Your task to perform on an android device: uninstall "Google Maps" Image 0: 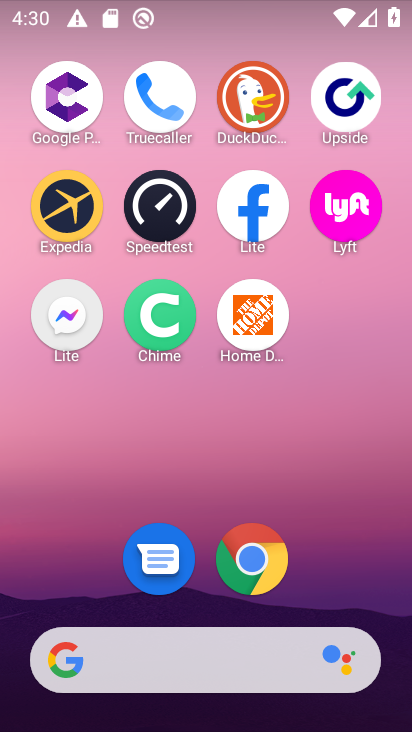
Step 0: drag from (207, 577) to (265, 16)
Your task to perform on an android device: uninstall "Google Maps" Image 1: 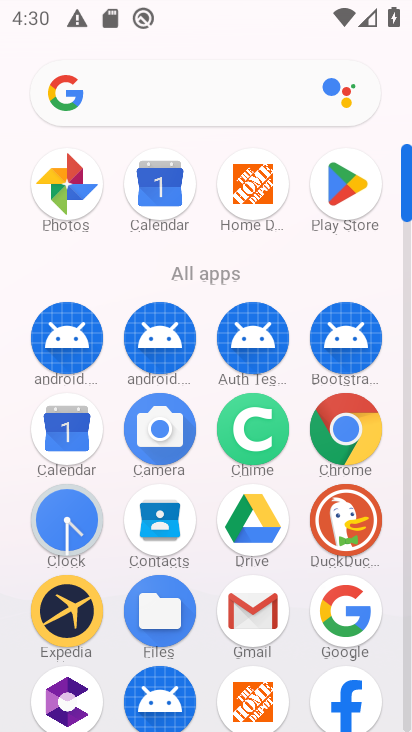
Step 1: click (359, 183)
Your task to perform on an android device: uninstall "Google Maps" Image 2: 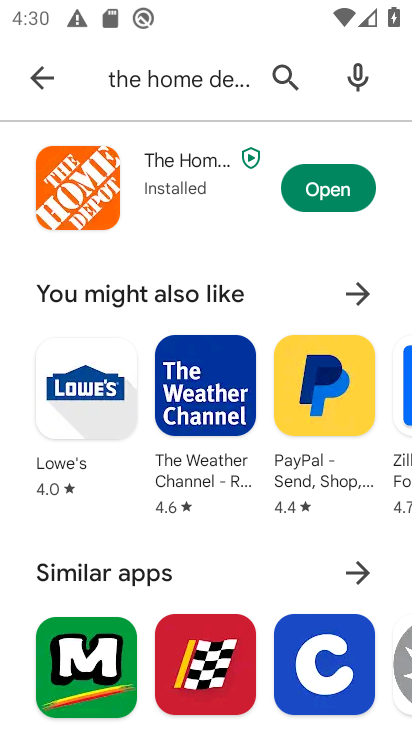
Step 2: click (213, 86)
Your task to perform on an android device: uninstall "Google Maps" Image 3: 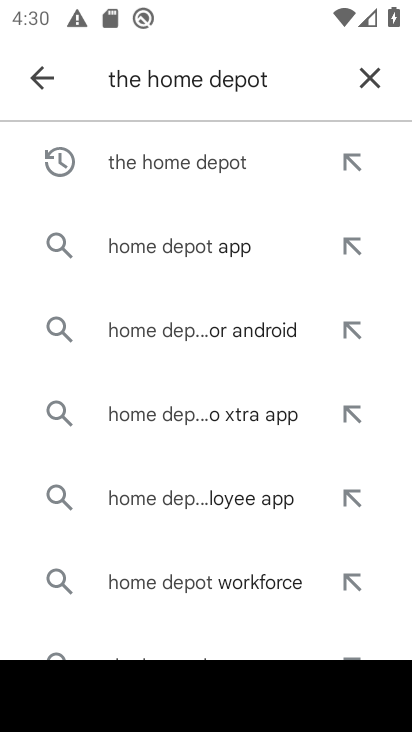
Step 3: click (374, 76)
Your task to perform on an android device: uninstall "Google Maps" Image 4: 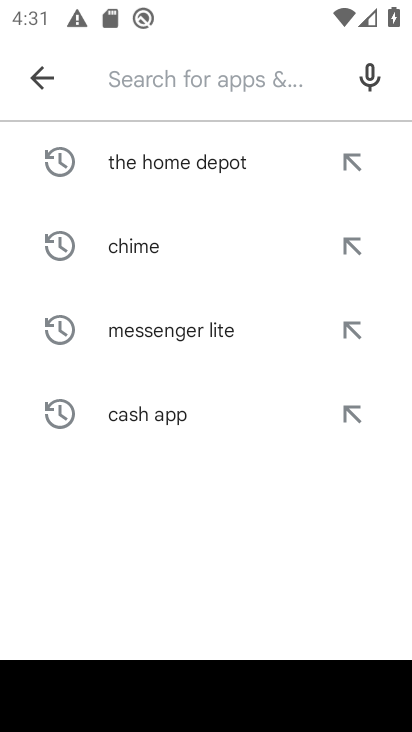
Step 4: type "google maps"
Your task to perform on an android device: uninstall "Google Maps" Image 5: 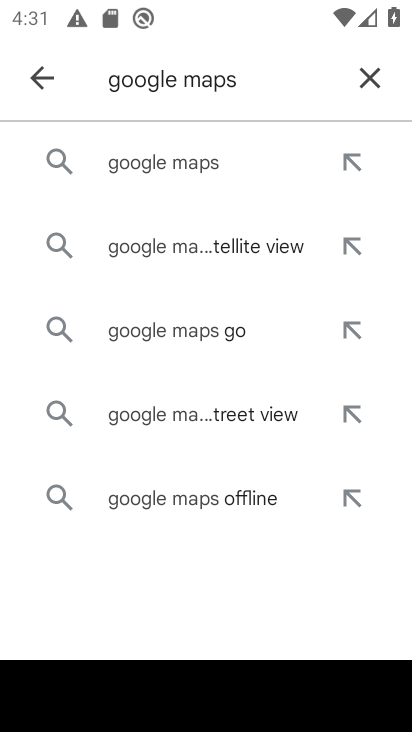
Step 5: click (190, 172)
Your task to perform on an android device: uninstall "Google Maps" Image 6: 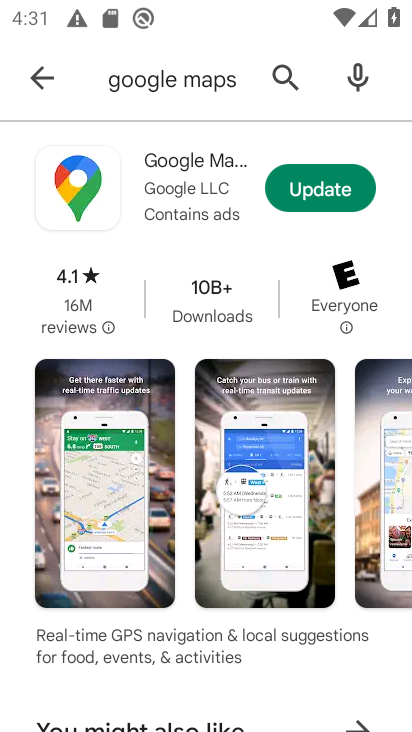
Step 6: click (217, 185)
Your task to perform on an android device: uninstall "Google Maps" Image 7: 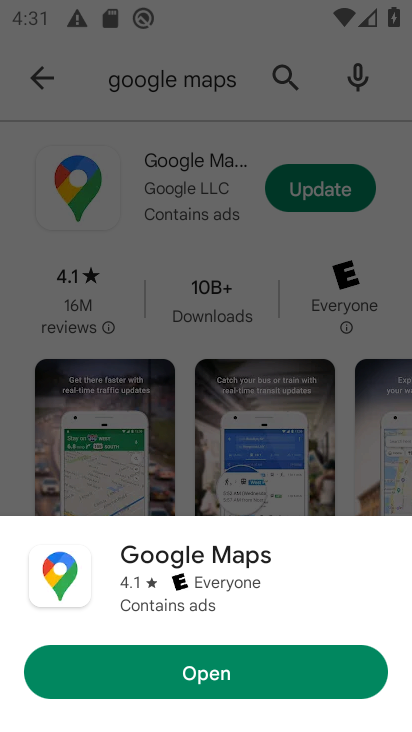
Step 7: click (172, 184)
Your task to perform on an android device: uninstall "Google Maps" Image 8: 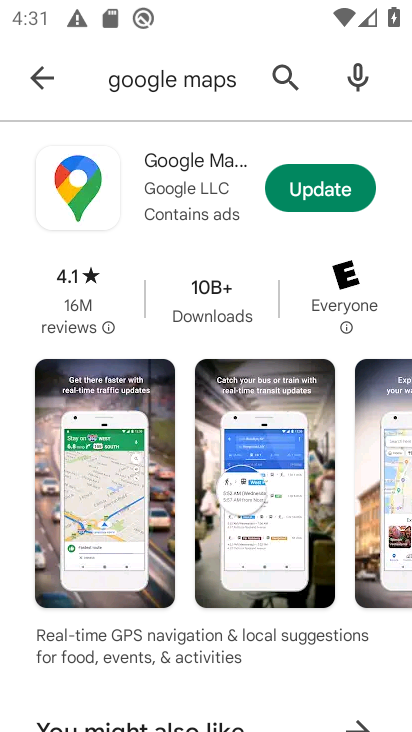
Step 8: click (294, 186)
Your task to perform on an android device: uninstall "Google Maps" Image 9: 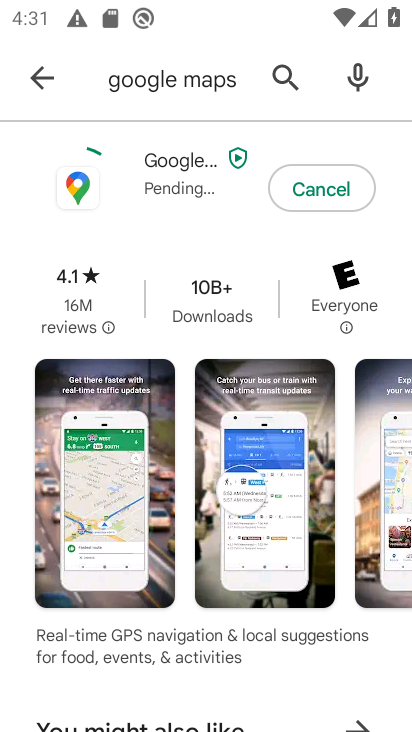
Step 9: click (81, 186)
Your task to perform on an android device: uninstall "Google Maps" Image 10: 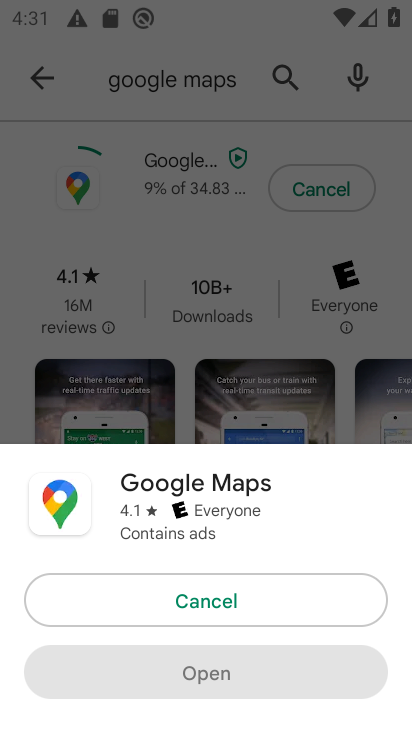
Step 10: click (188, 604)
Your task to perform on an android device: uninstall "Google Maps" Image 11: 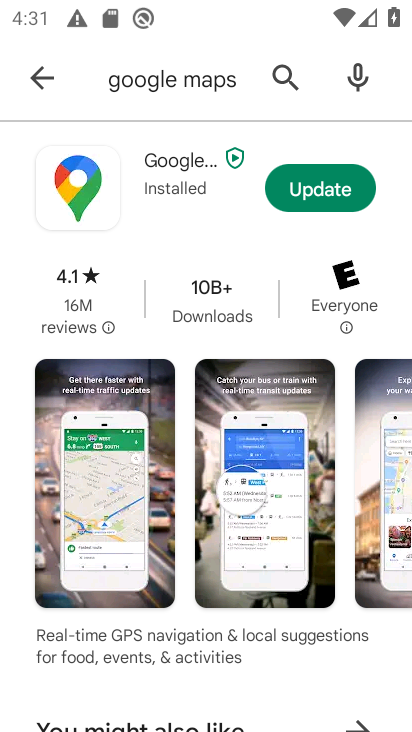
Step 11: task complete